Your task to perform on an android device: View the shopping cart on amazon.com. Search for "usb-c to usb-b" on amazon.com, select the first entry, add it to the cart, then select checkout. Image 0: 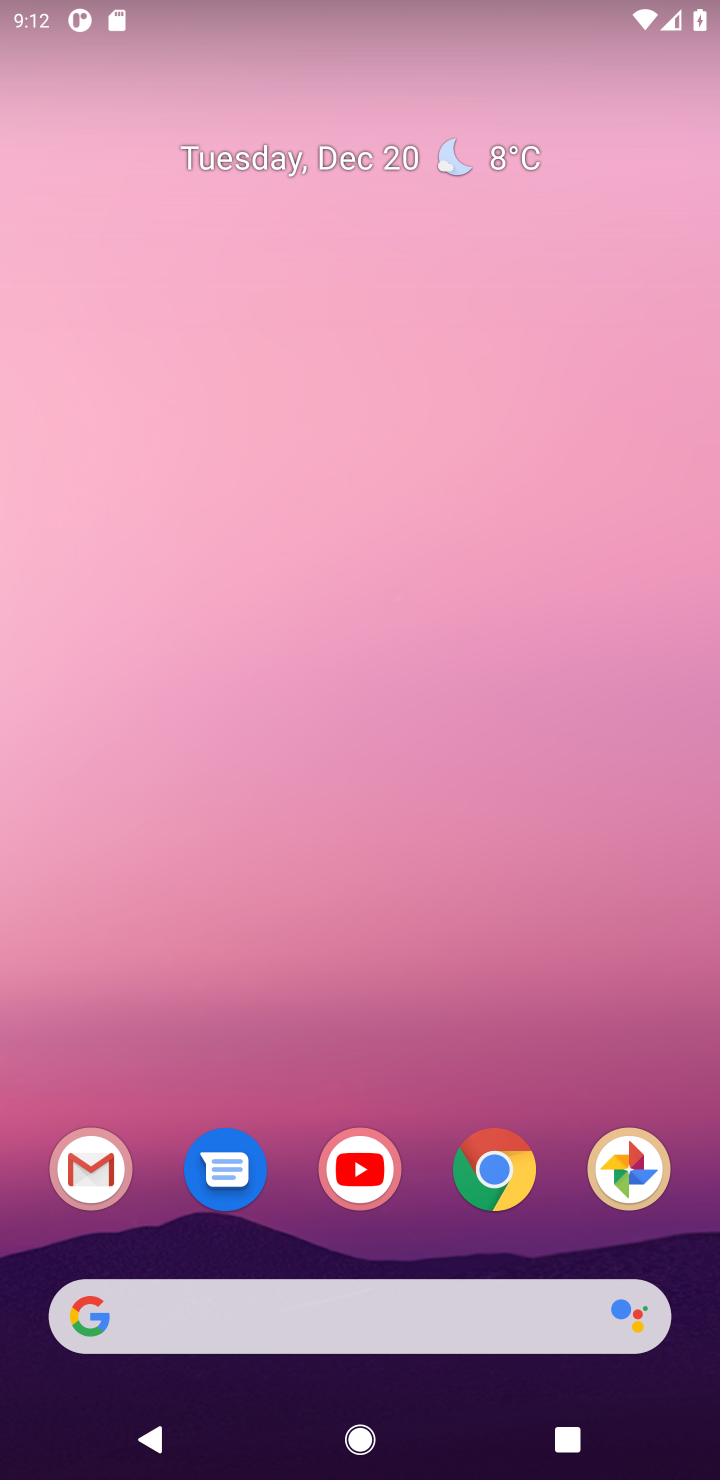
Step 0: click (494, 1149)
Your task to perform on an android device: View the shopping cart on amazon.com. Search for "usb-c to usb-b" on amazon.com, select the first entry, add it to the cart, then select checkout. Image 1: 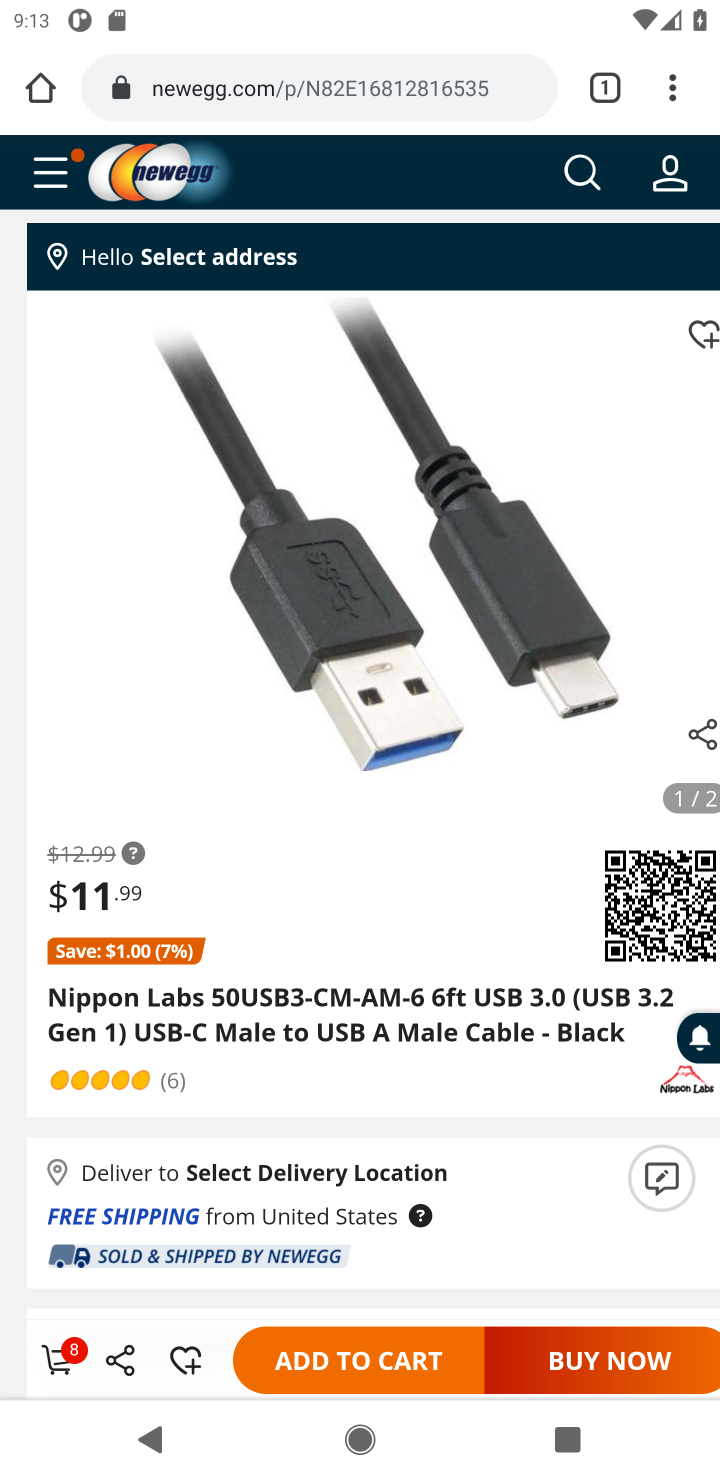
Step 1: click (335, 1347)
Your task to perform on an android device: View the shopping cart on amazon.com. Search for "usb-c to usb-b" on amazon.com, select the first entry, add it to the cart, then select checkout. Image 2: 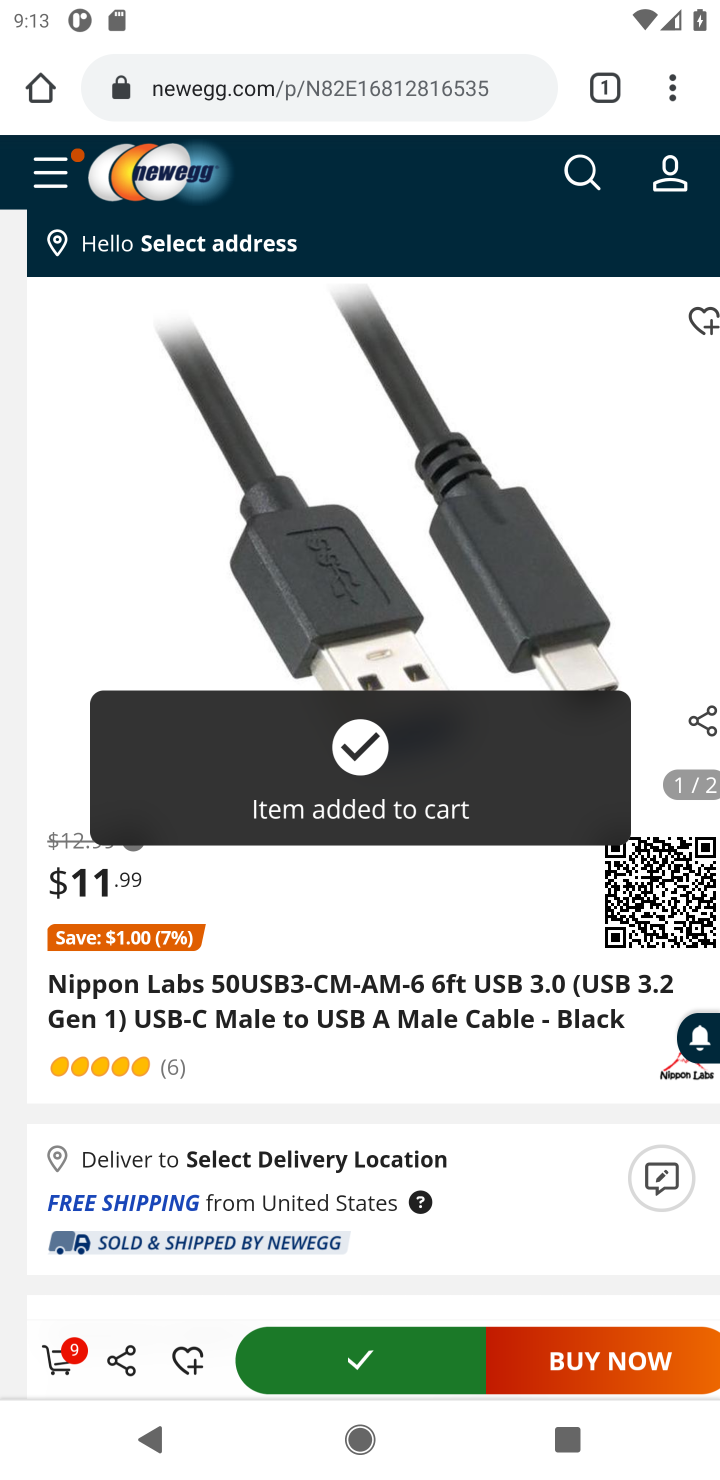
Step 2: task complete